Your task to perform on an android device: turn off smart reply in the gmail app Image 0: 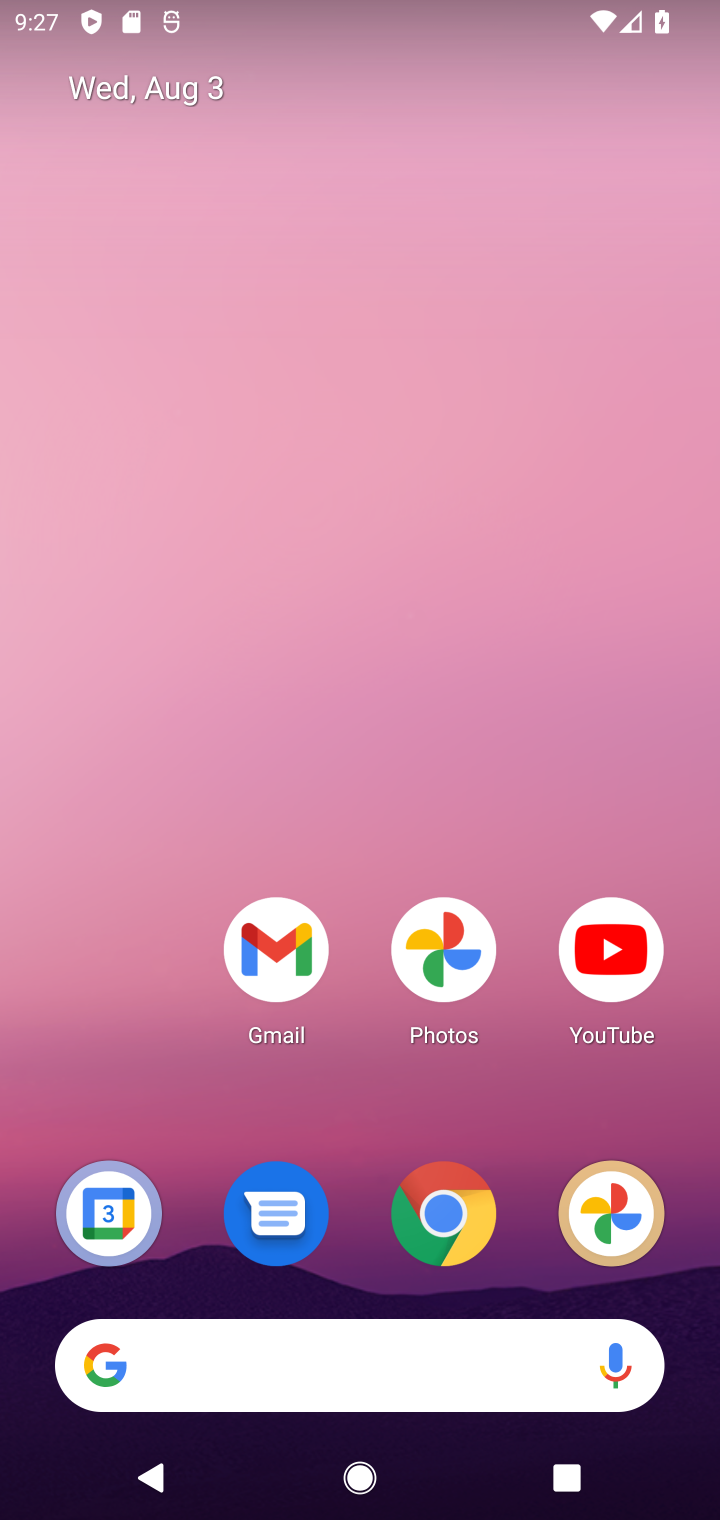
Step 0: drag from (539, 1056) to (516, 328)
Your task to perform on an android device: turn off smart reply in the gmail app Image 1: 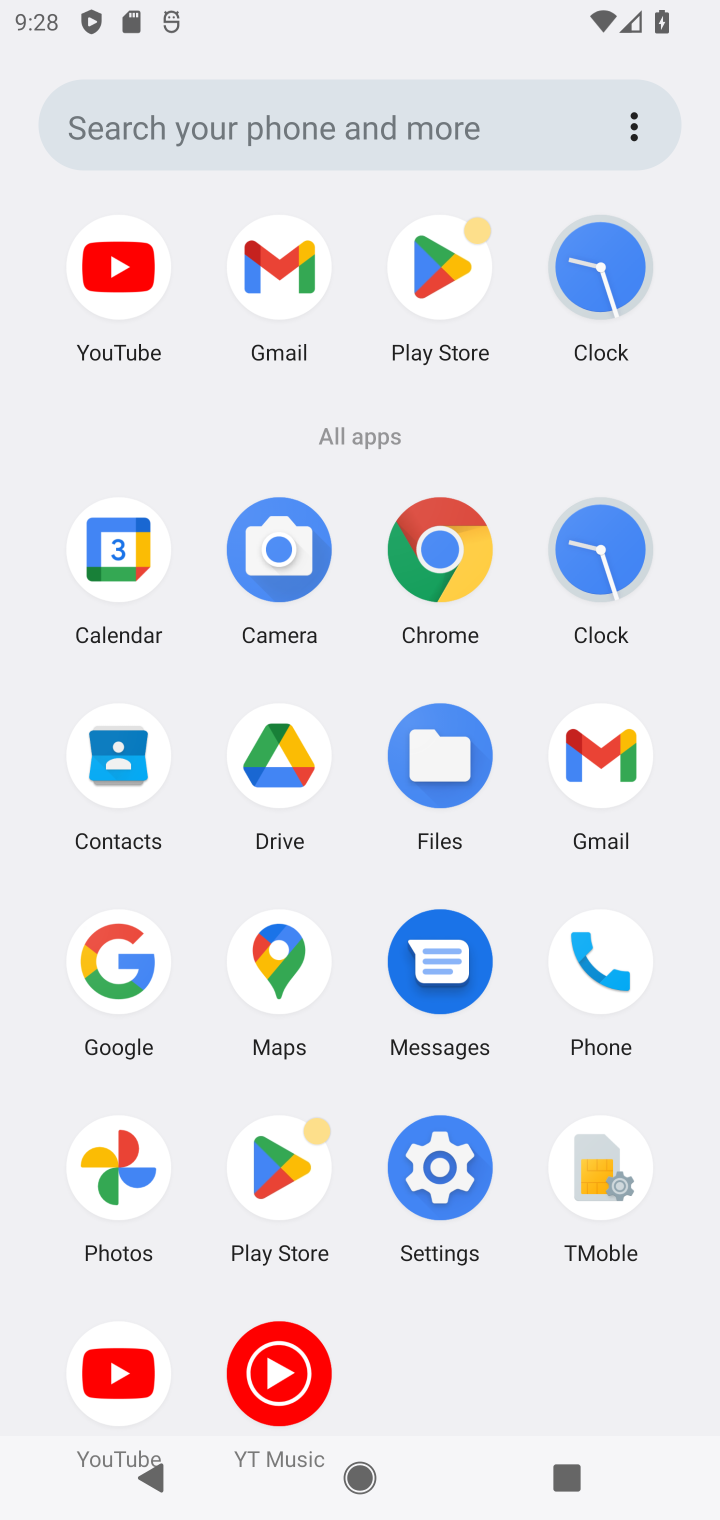
Step 1: click (614, 758)
Your task to perform on an android device: turn off smart reply in the gmail app Image 2: 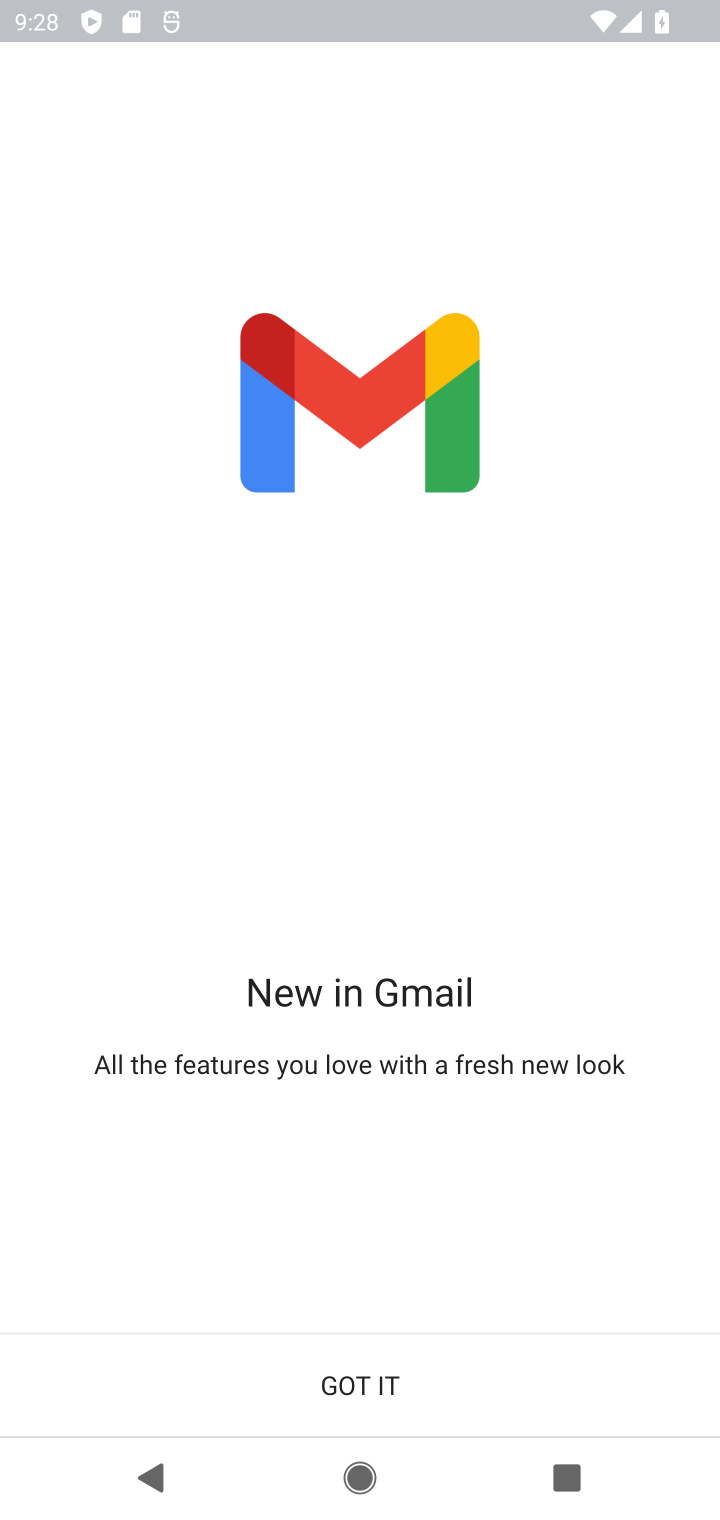
Step 2: click (458, 1380)
Your task to perform on an android device: turn off smart reply in the gmail app Image 3: 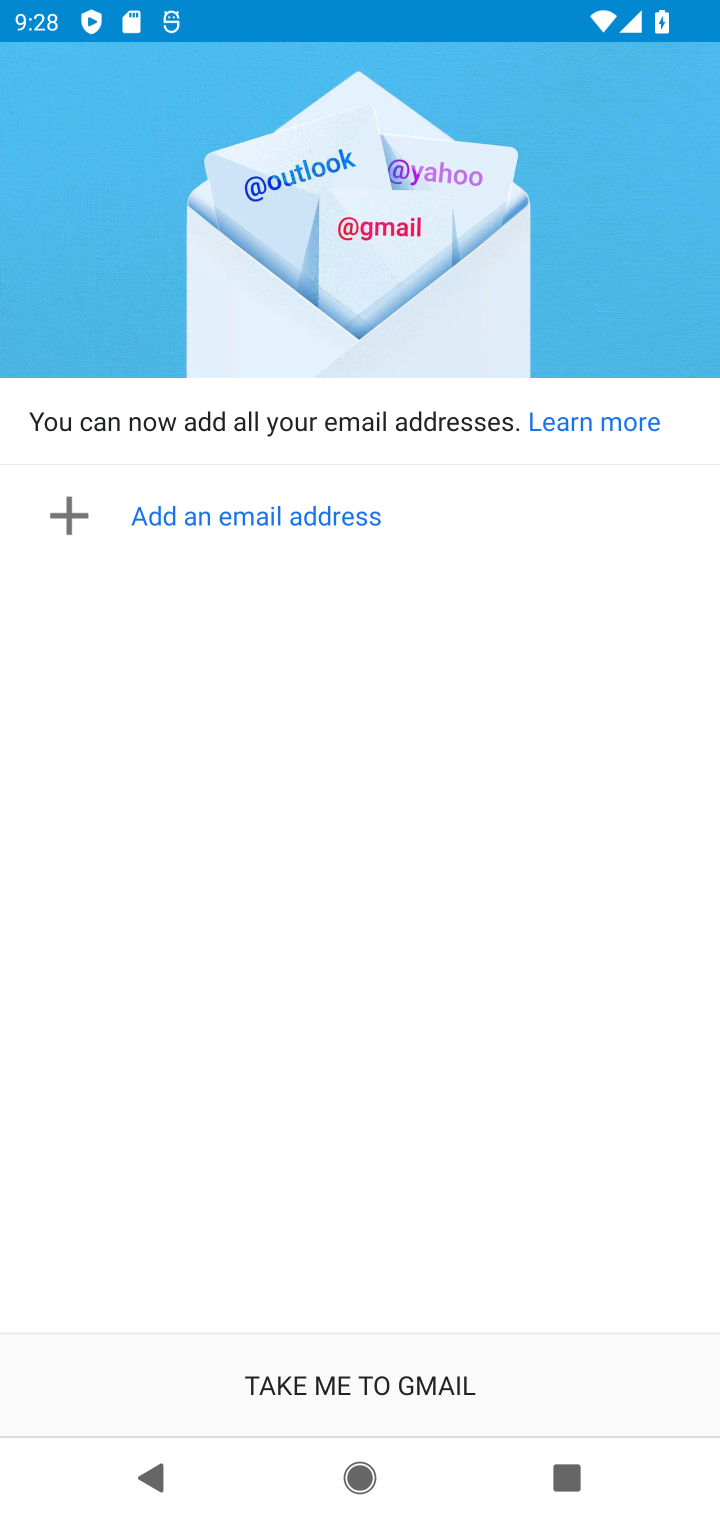
Step 3: click (458, 1380)
Your task to perform on an android device: turn off smart reply in the gmail app Image 4: 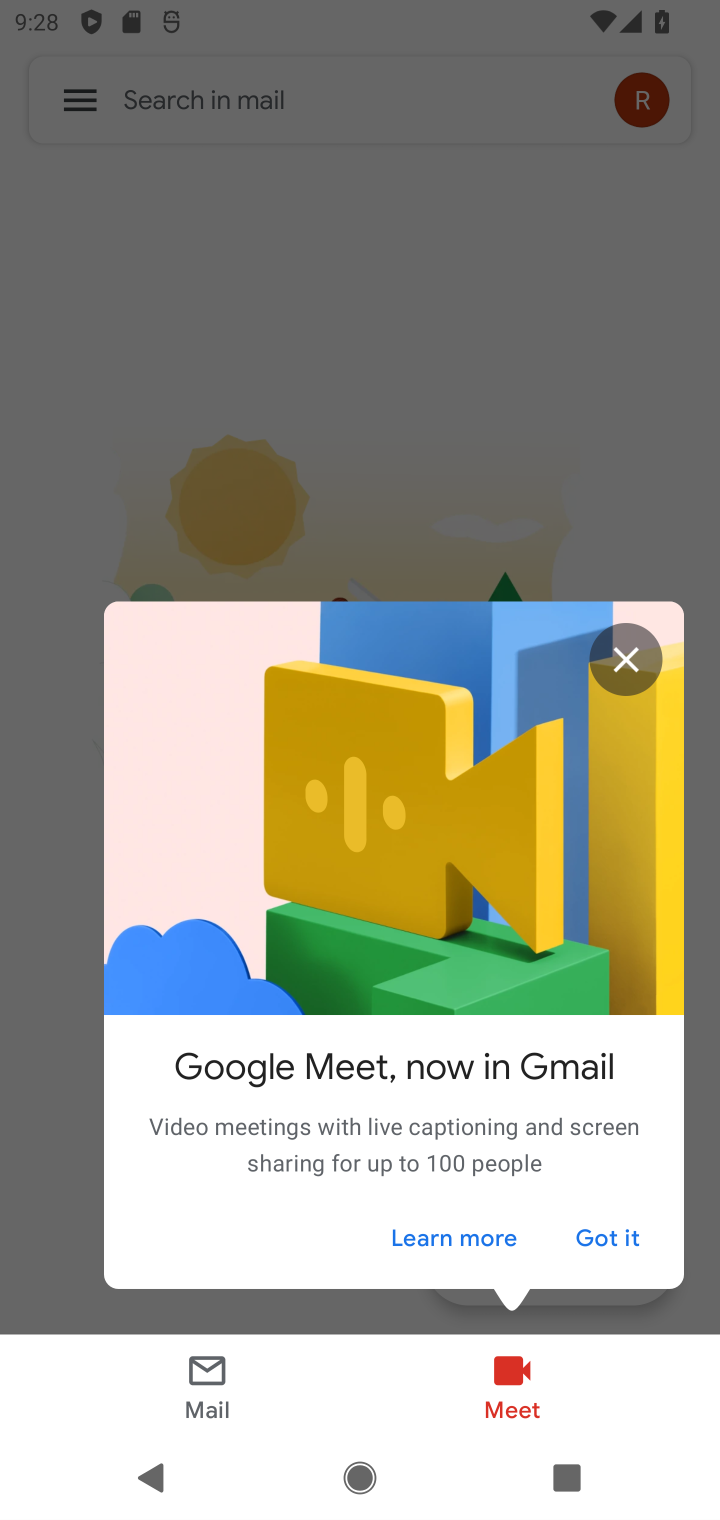
Step 4: click (640, 665)
Your task to perform on an android device: turn off smart reply in the gmail app Image 5: 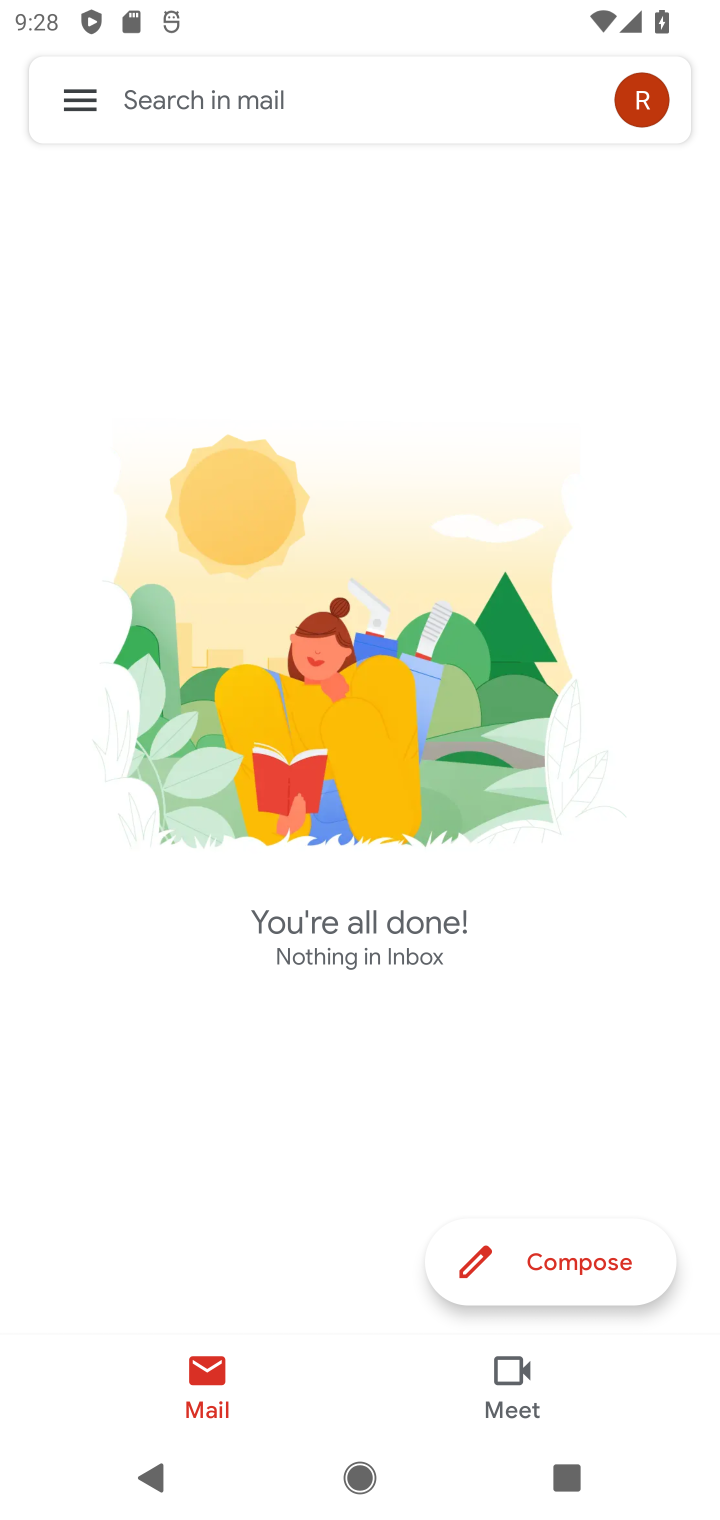
Step 5: click (90, 108)
Your task to perform on an android device: turn off smart reply in the gmail app Image 6: 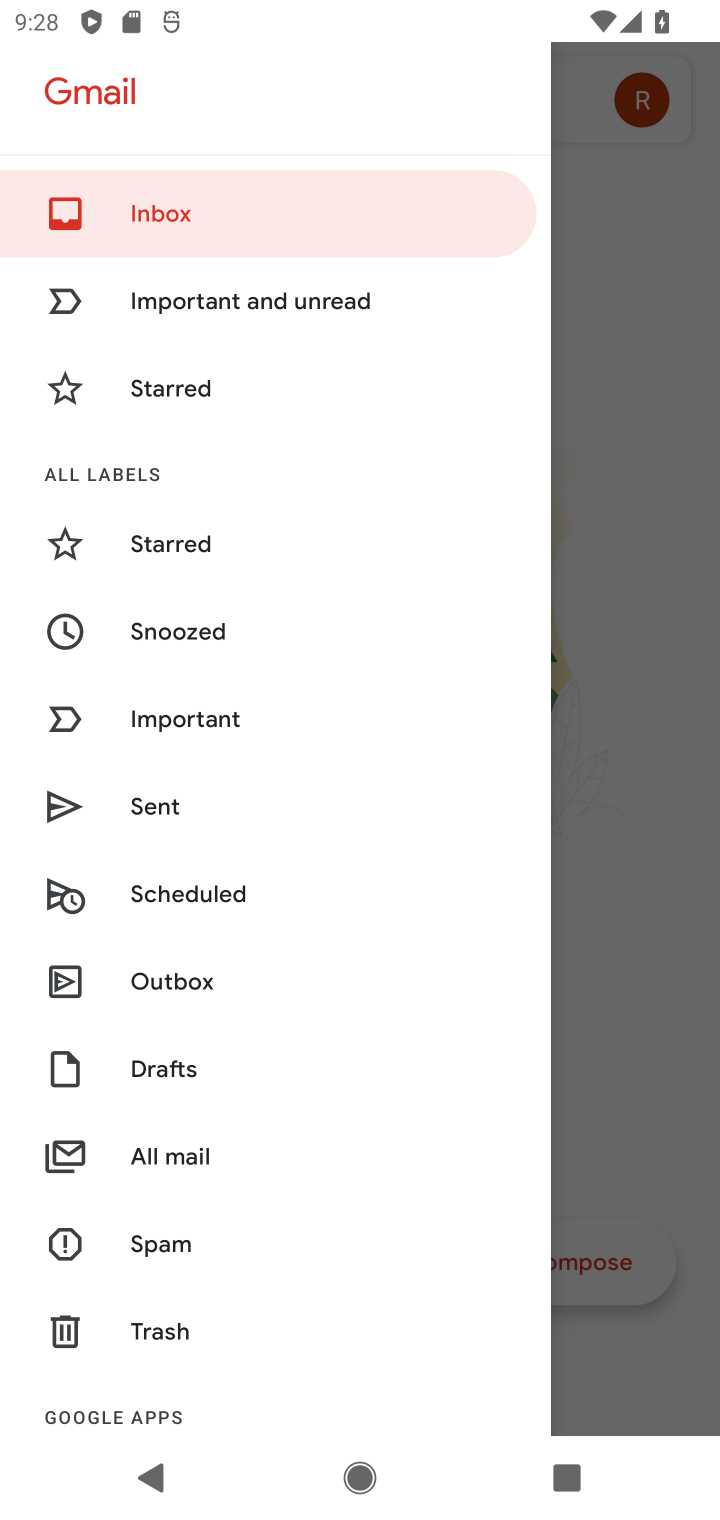
Step 6: drag from (400, 1247) to (354, 306)
Your task to perform on an android device: turn off smart reply in the gmail app Image 7: 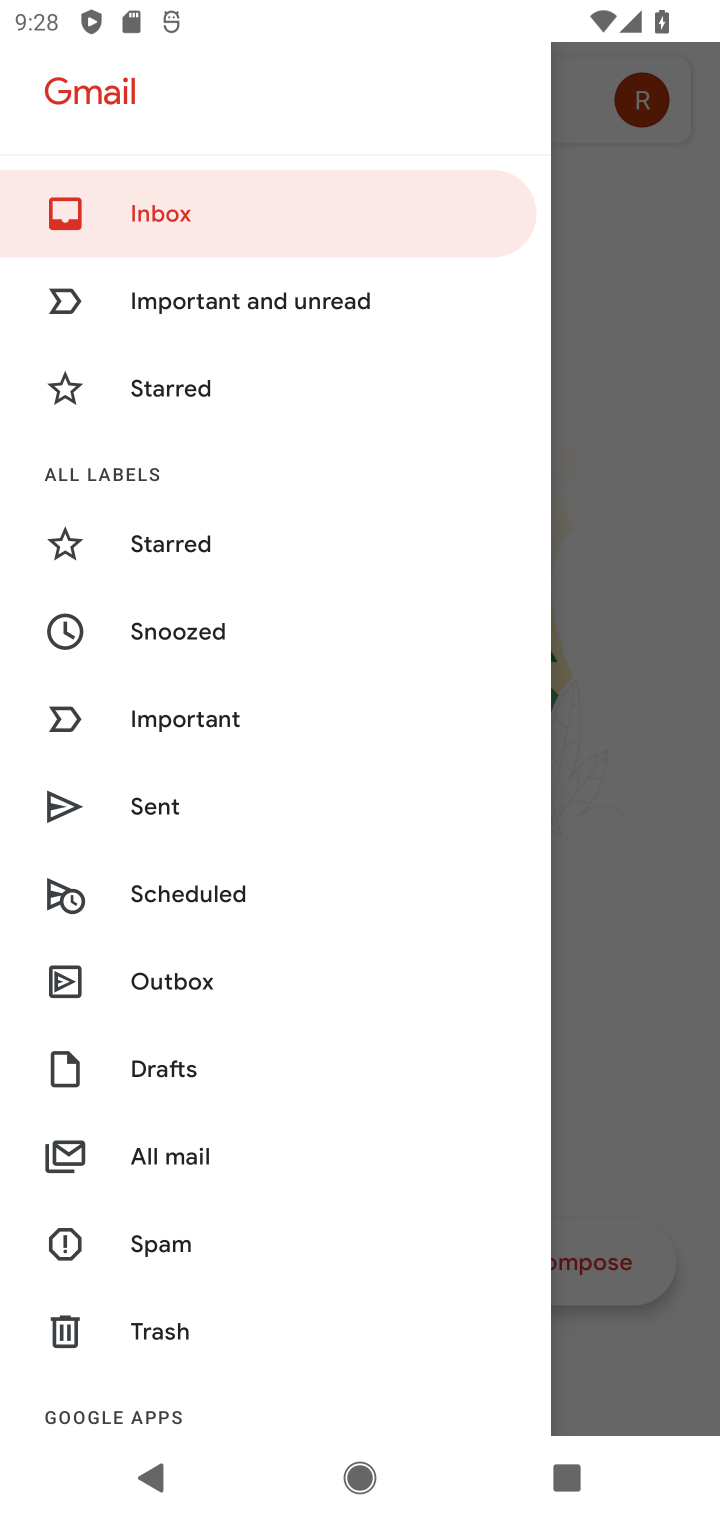
Step 7: drag from (259, 1099) to (316, 393)
Your task to perform on an android device: turn off smart reply in the gmail app Image 8: 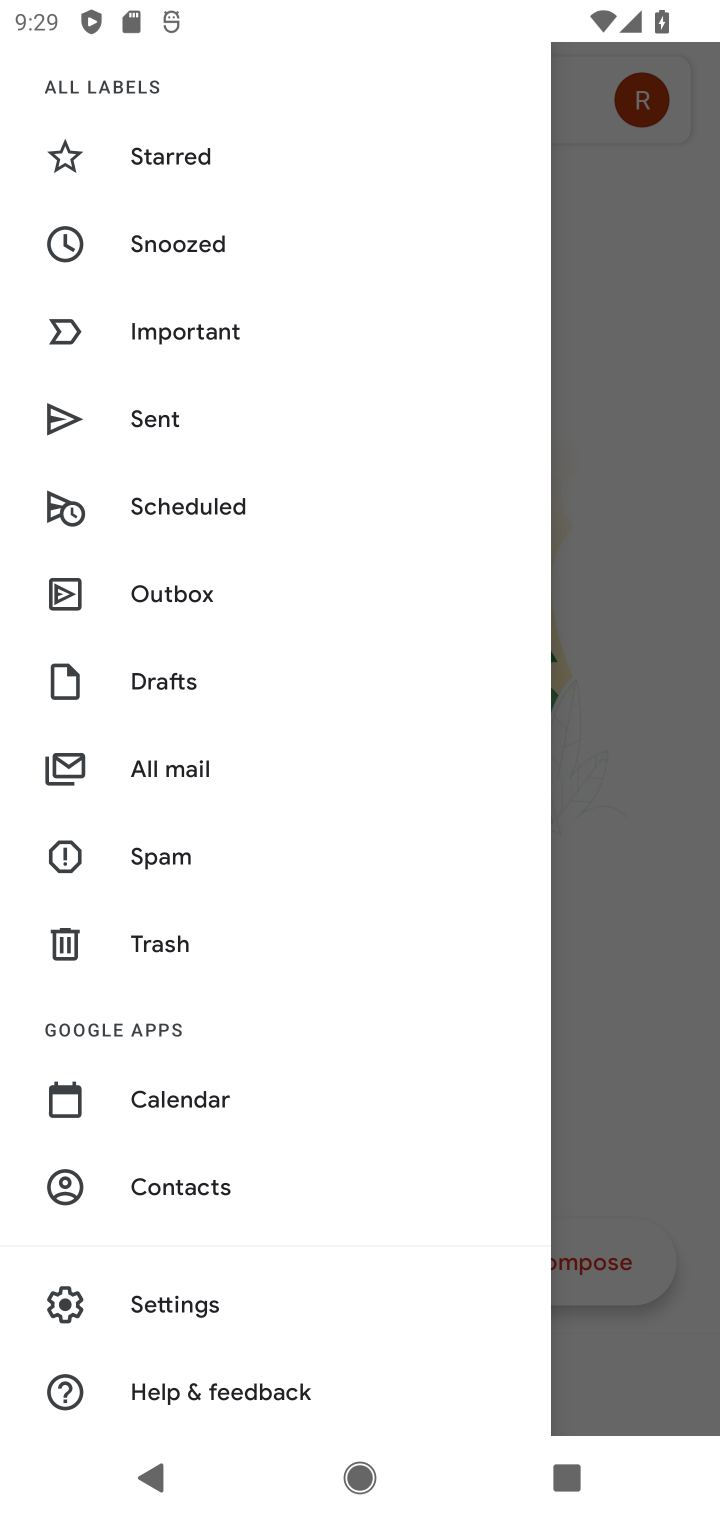
Step 8: click (211, 1290)
Your task to perform on an android device: turn off smart reply in the gmail app Image 9: 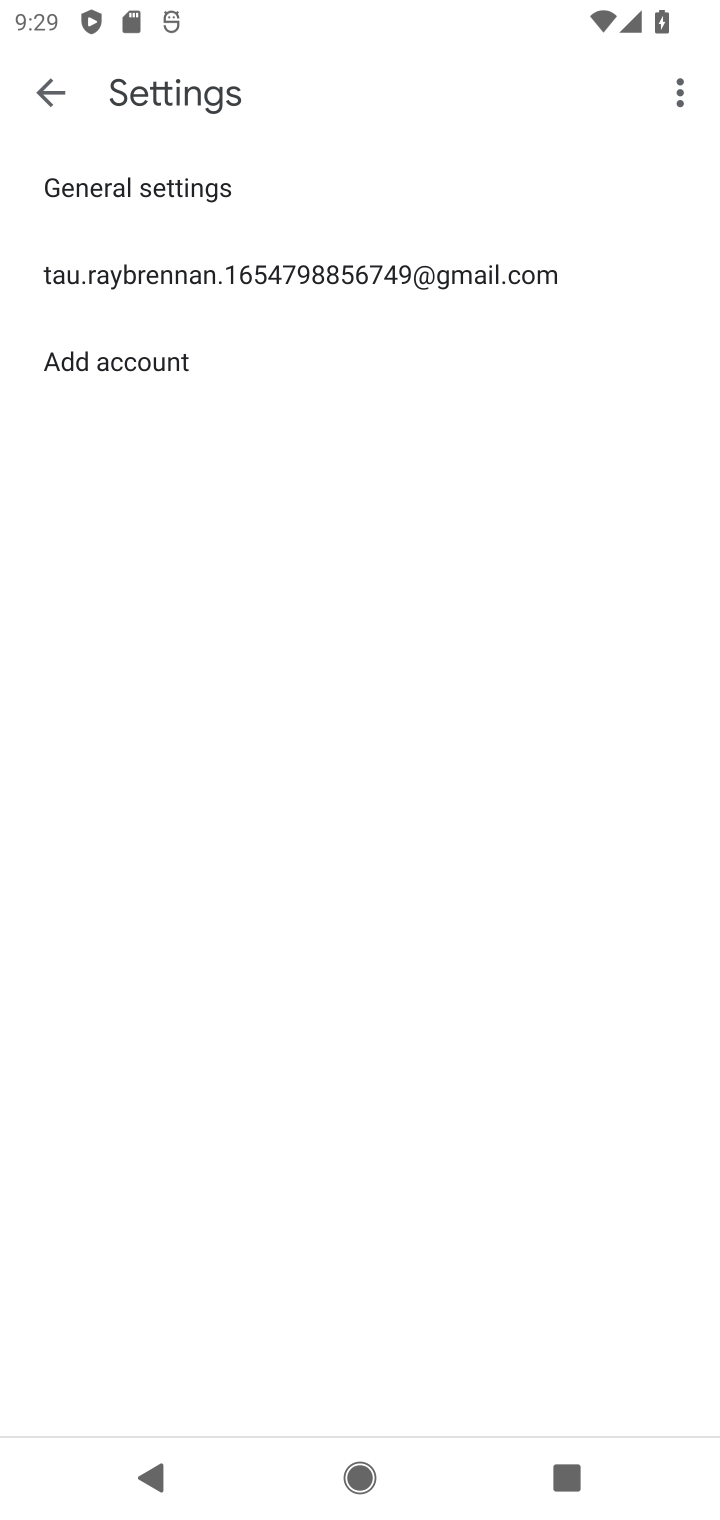
Step 9: click (240, 262)
Your task to perform on an android device: turn off smart reply in the gmail app Image 10: 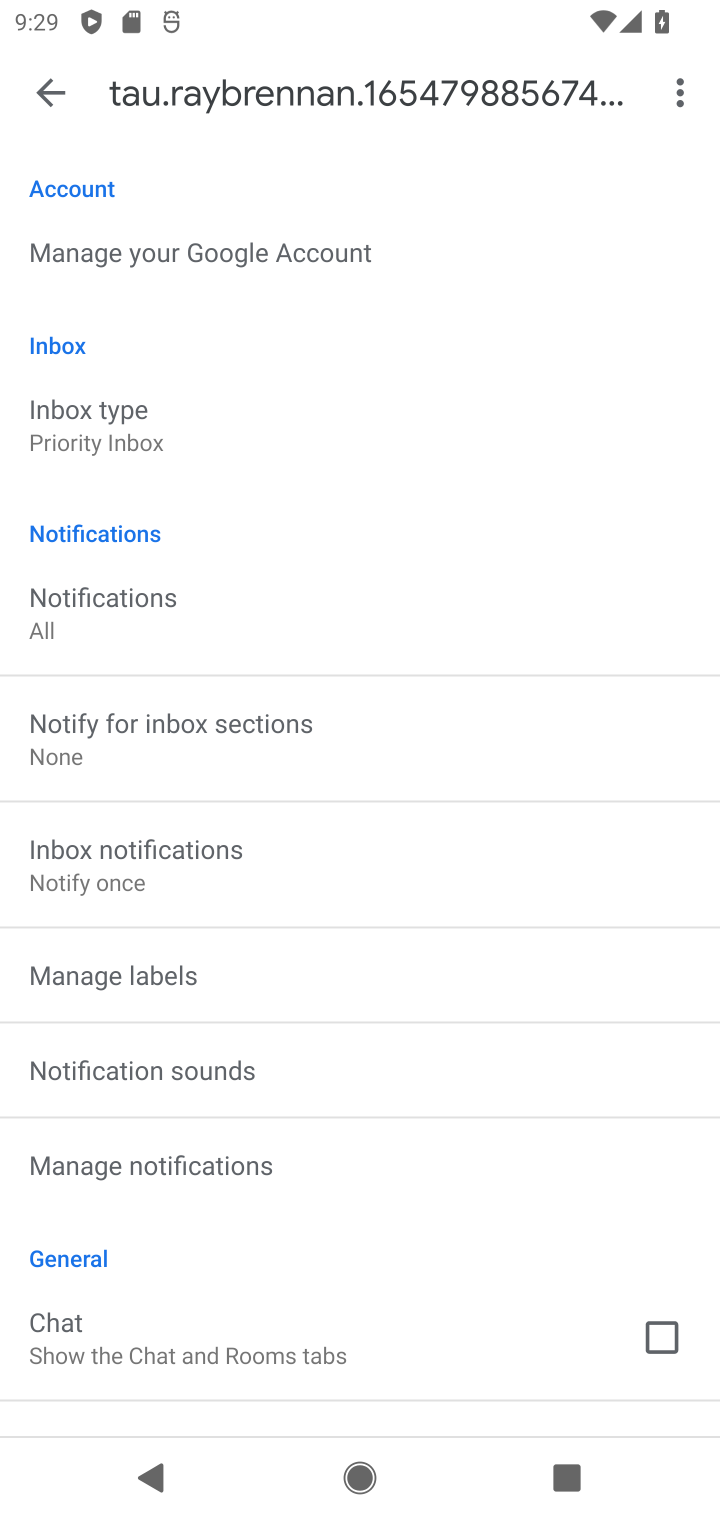
Step 10: drag from (403, 1217) to (448, 372)
Your task to perform on an android device: turn off smart reply in the gmail app Image 11: 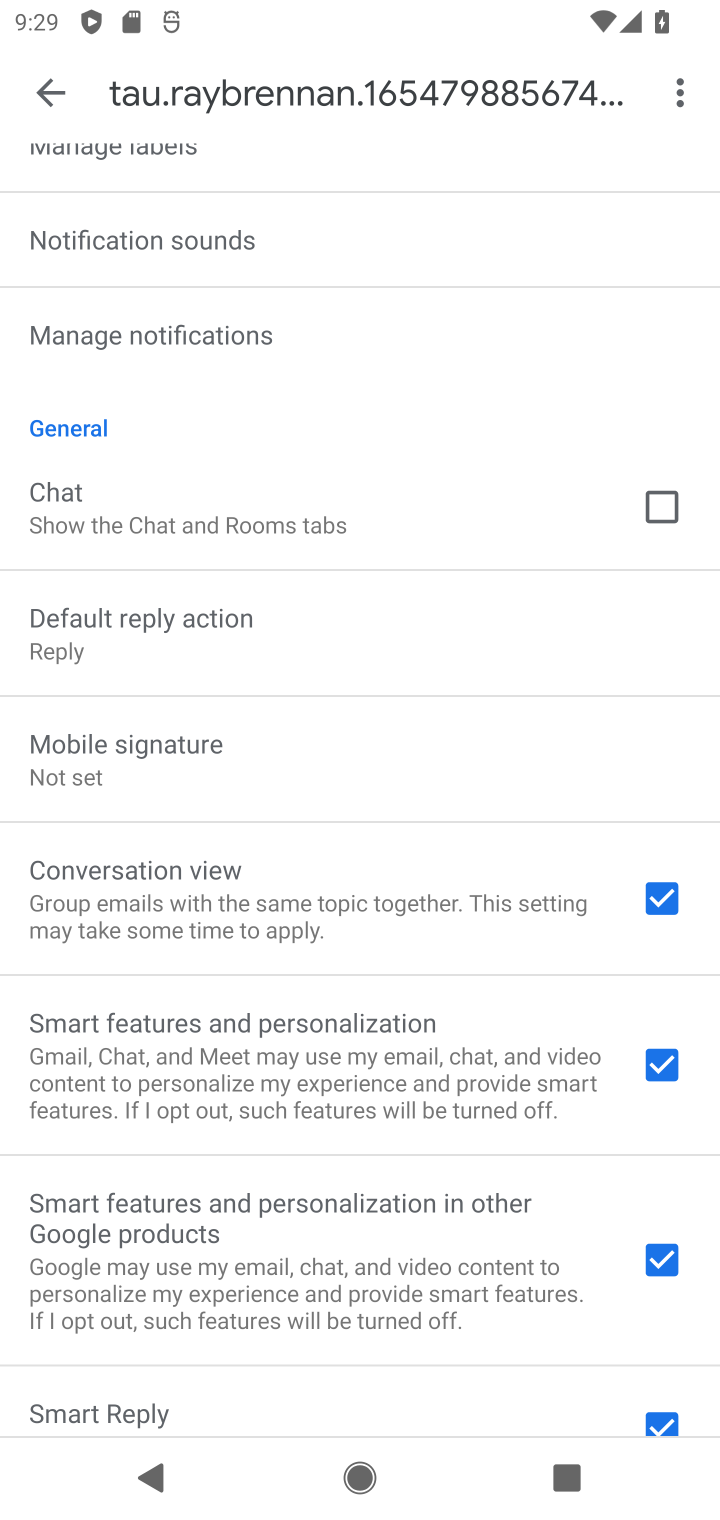
Step 11: drag from (535, 1175) to (497, 734)
Your task to perform on an android device: turn off smart reply in the gmail app Image 12: 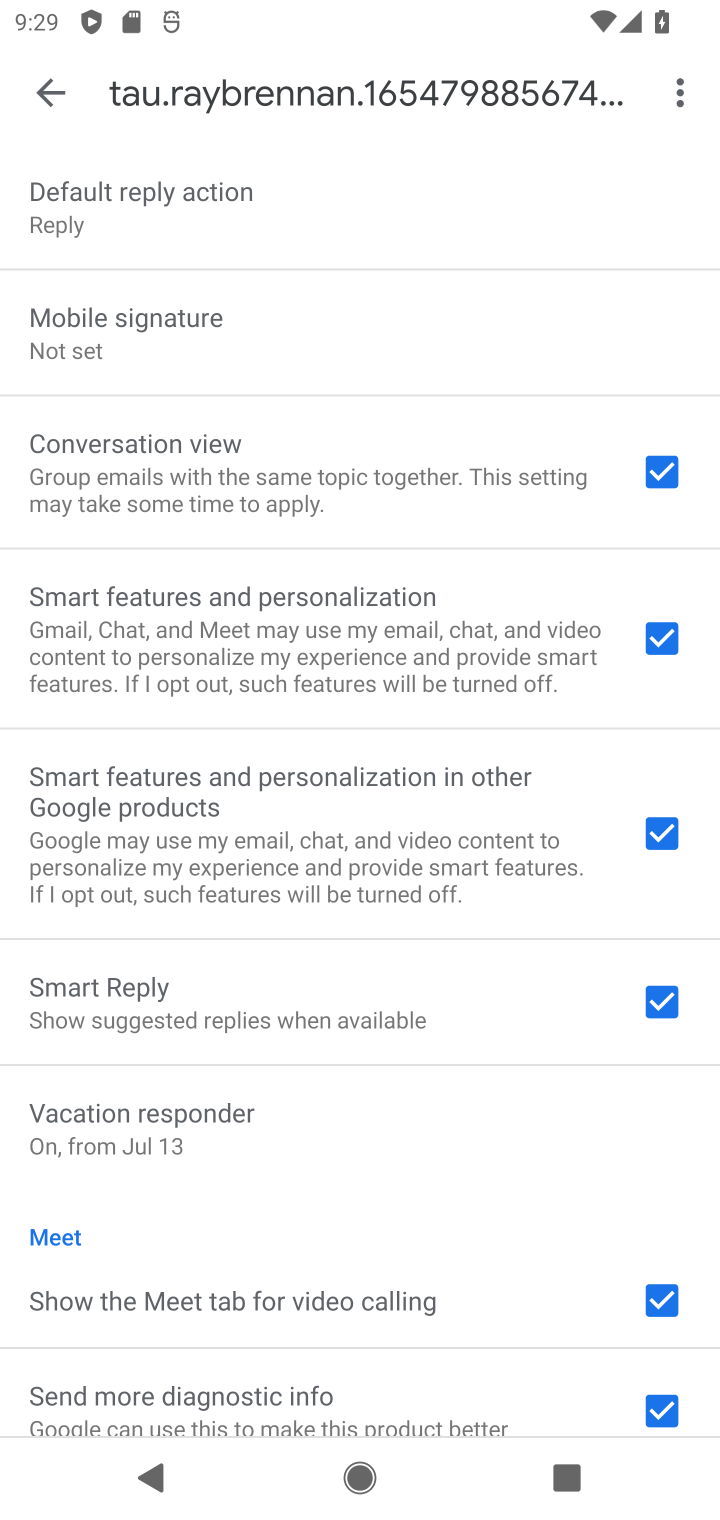
Step 12: click (665, 1001)
Your task to perform on an android device: turn off smart reply in the gmail app Image 13: 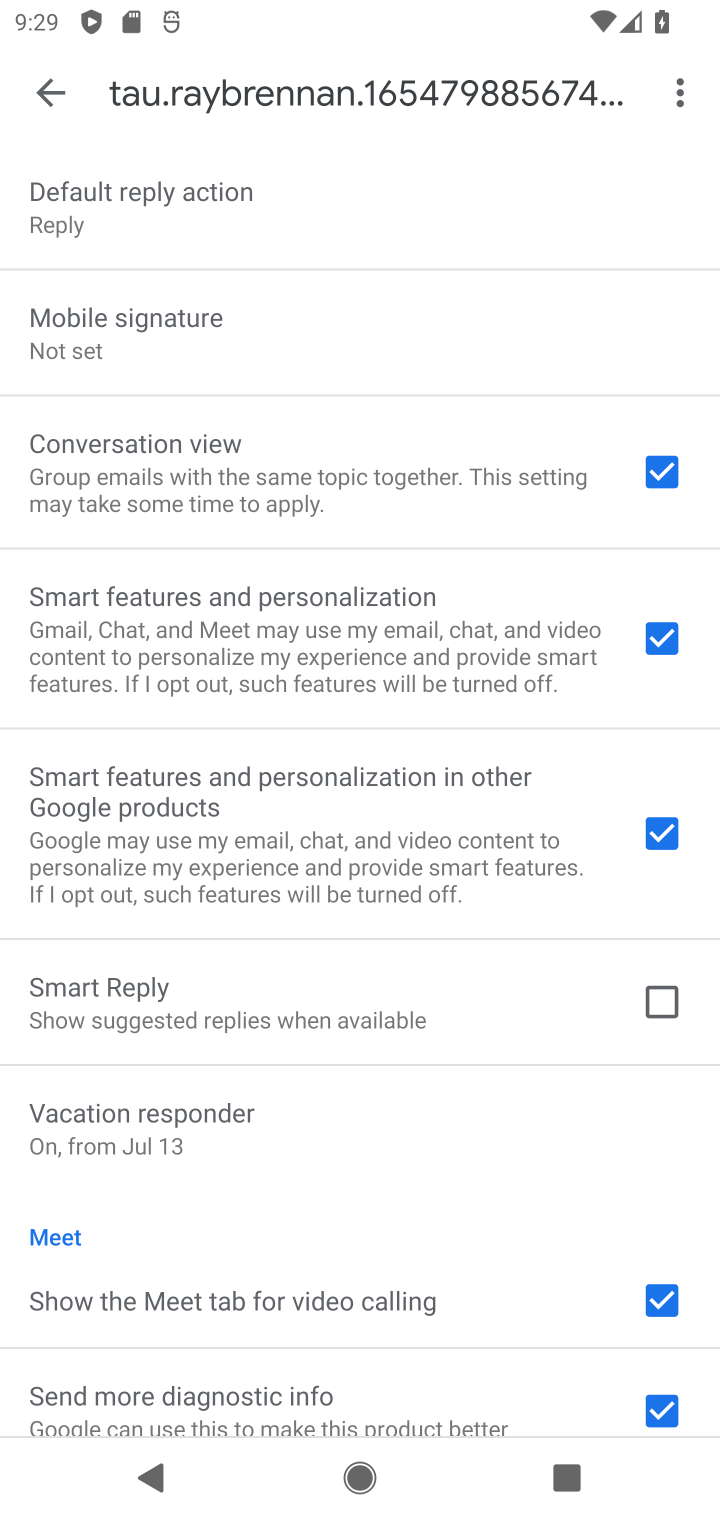
Step 13: task complete